Your task to perform on an android device: What's the weather going to be tomorrow? Image 0: 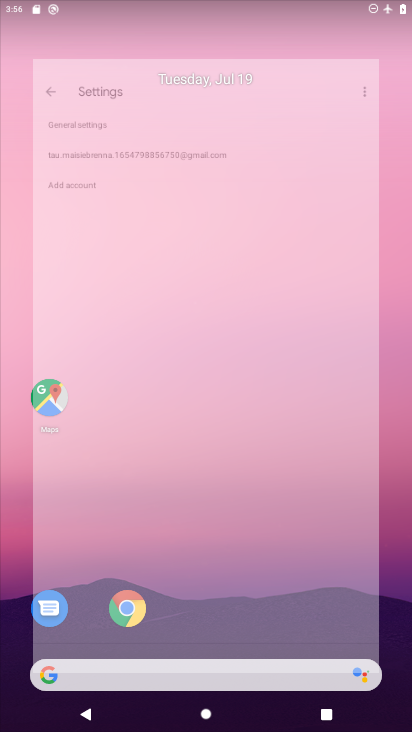
Step 0: drag from (272, 573) to (281, 105)
Your task to perform on an android device: What's the weather going to be tomorrow? Image 1: 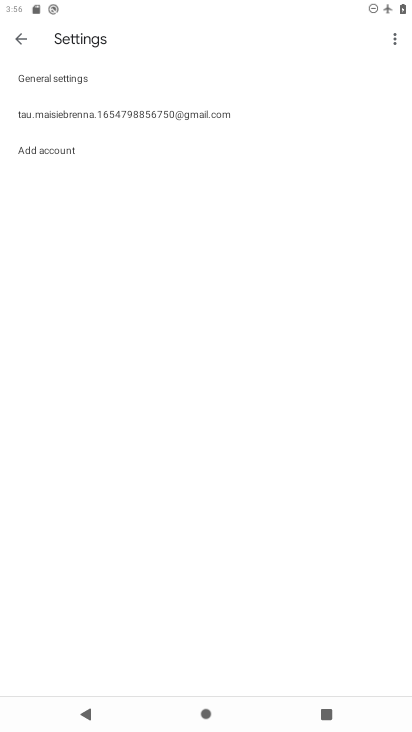
Step 1: press home button
Your task to perform on an android device: What's the weather going to be tomorrow? Image 2: 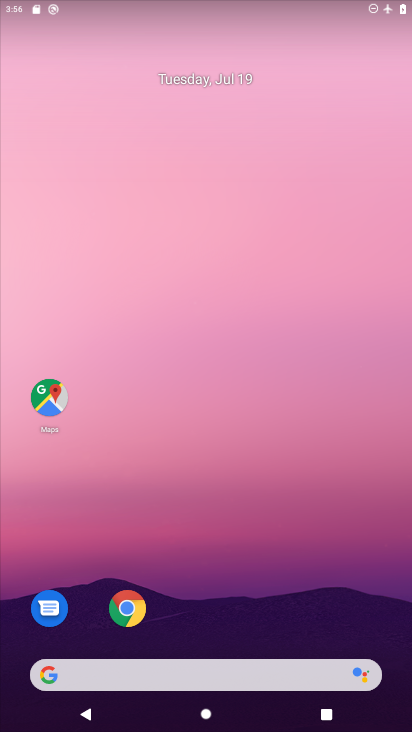
Step 2: drag from (352, 602) to (268, 122)
Your task to perform on an android device: What's the weather going to be tomorrow? Image 3: 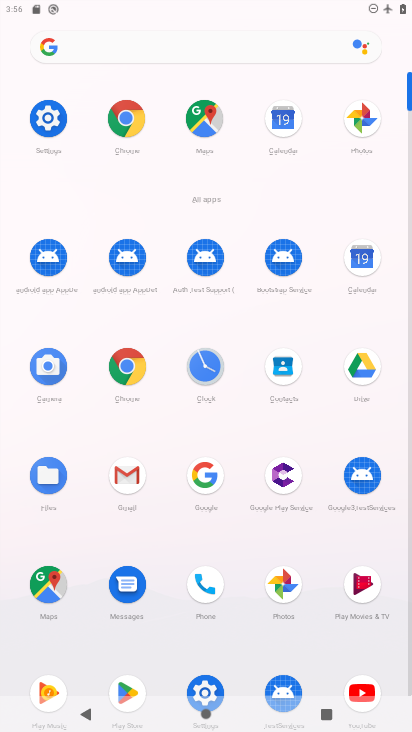
Step 3: click (121, 109)
Your task to perform on an android device: What's the weather going to be tomorrow? Image 4: 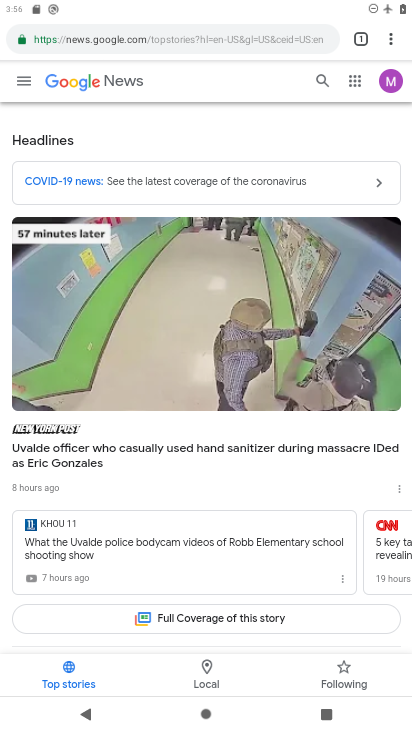
Step 4: click (201, 46)
Your task to perform on an android device: What's the weather going to be tomorrow? Image 5: 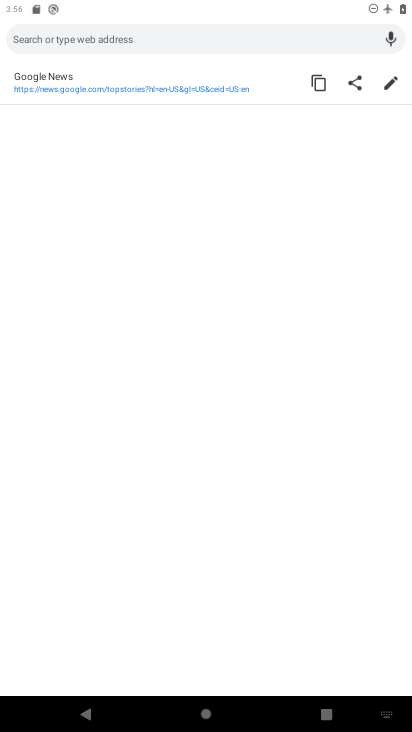
Step 5: type "weather"
Your task to perform on an android device: What's the weather going to be tomorrow? Image 6: 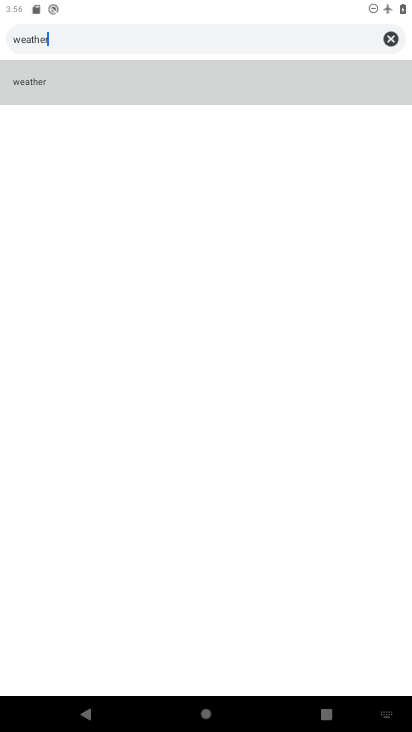
Step 6: click (54, 73)
Your task to perform on an android device: What's the weather going to be tomorrow? Image 7: 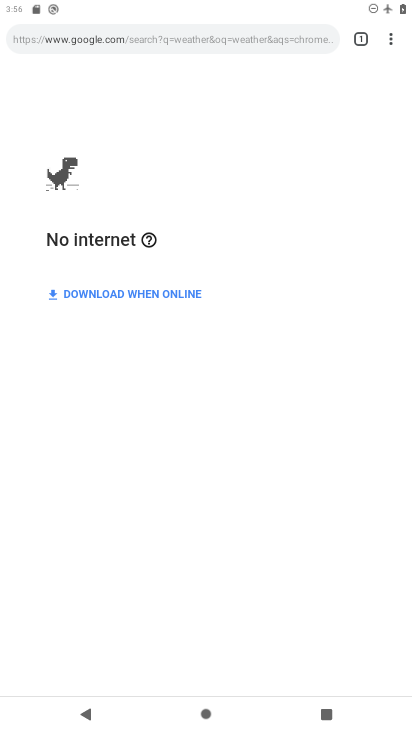
Step 7: task complete